Your task to perform on an android device: Open Amazon Image 0: 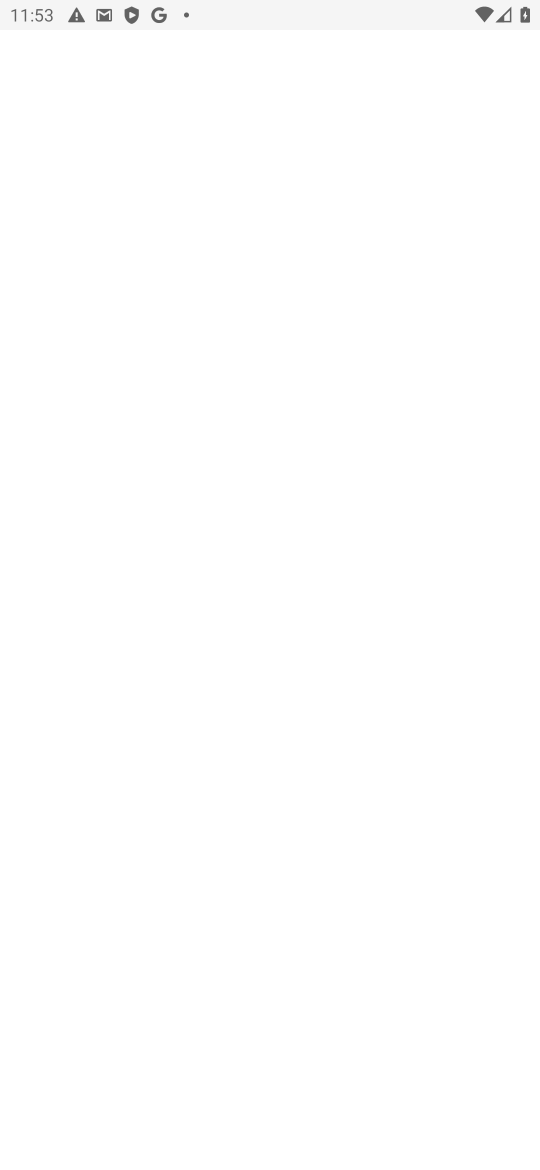
Step 0: press home button
Your task to perform on an android device: Open Amazon Image 1: 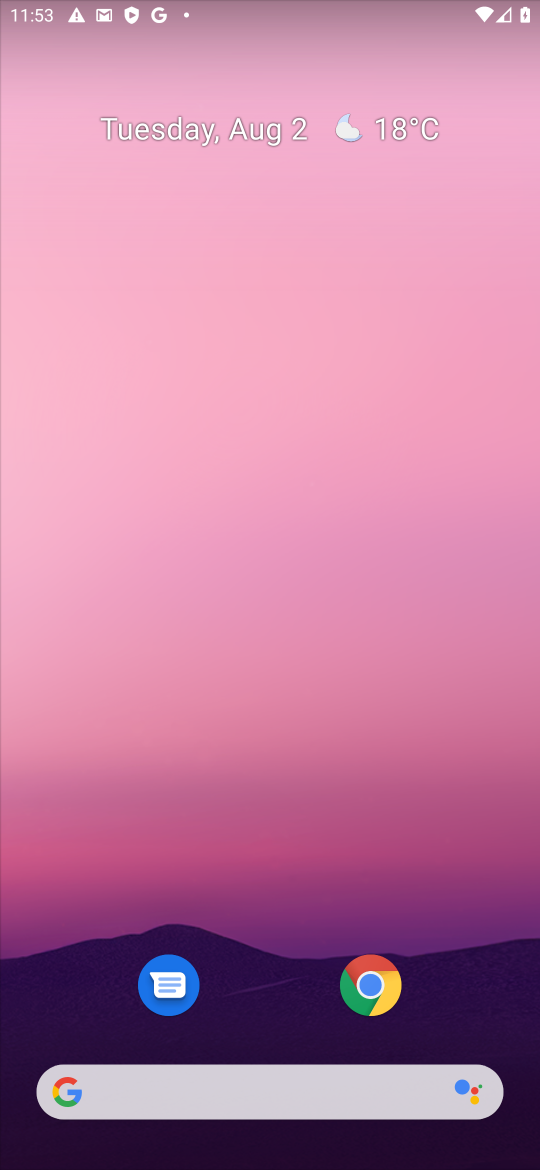
Step 1: click (343, 992)
Your task to perform on an android device: Open Amazon Image 2: 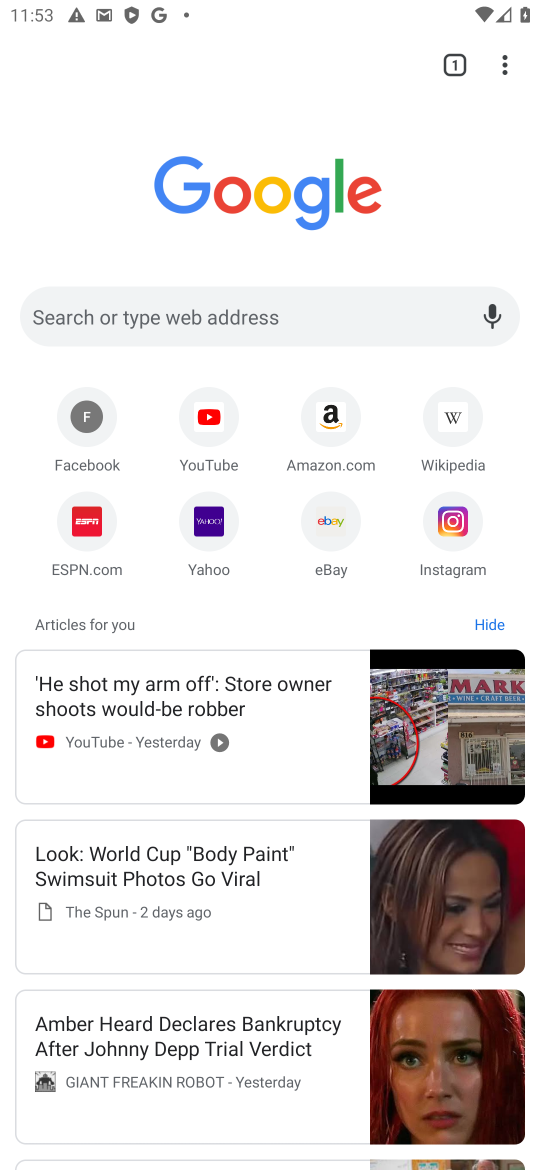
Step 2: click (297, 417)
Your task to perform on an android device: Open Amazon Image 3: 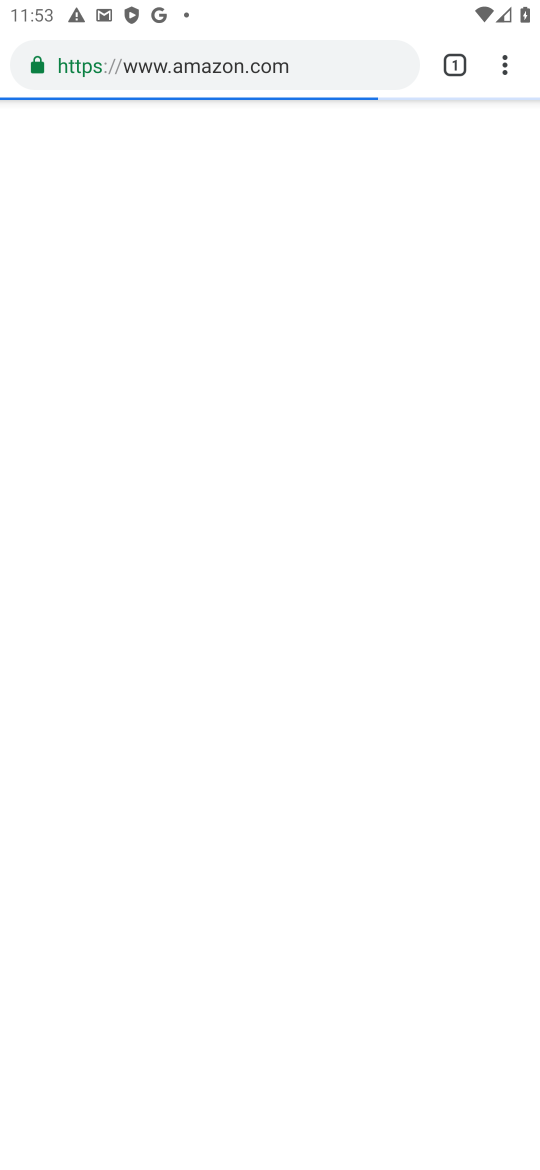
Step 3: task complete